Your task to perform on an android device: Show me popular games on the Play Store Image 0: 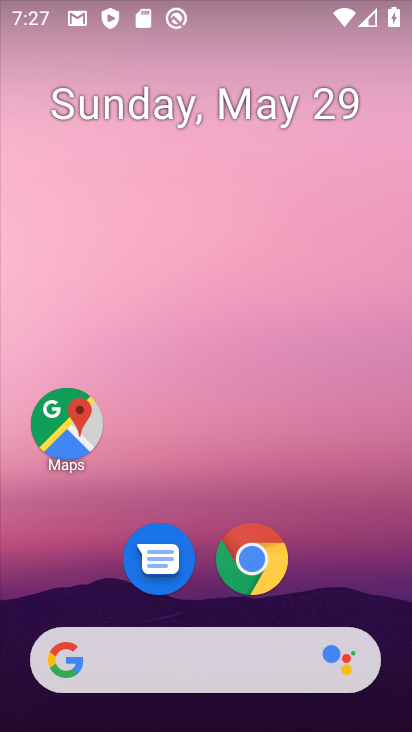
Step 0: drag from (375, 611) to (394, 163)
Your task to perform on an android device: Show me popular games on the Play Store Image 1: 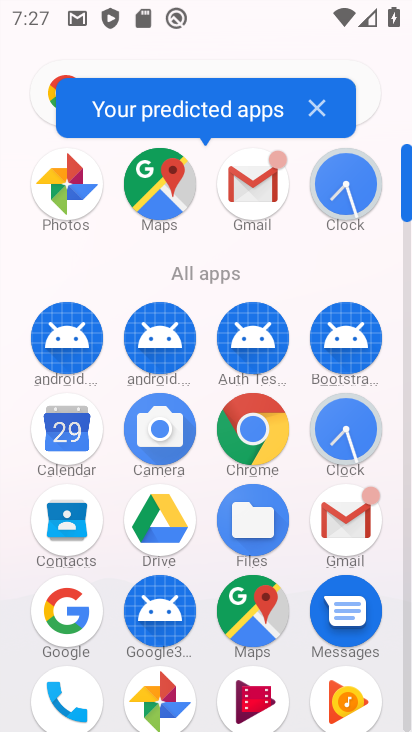
Step 1: drag from (390, 680) to (394, 398)
Your task to perform on an android device: Show me popular games on the Play Store Image 2: 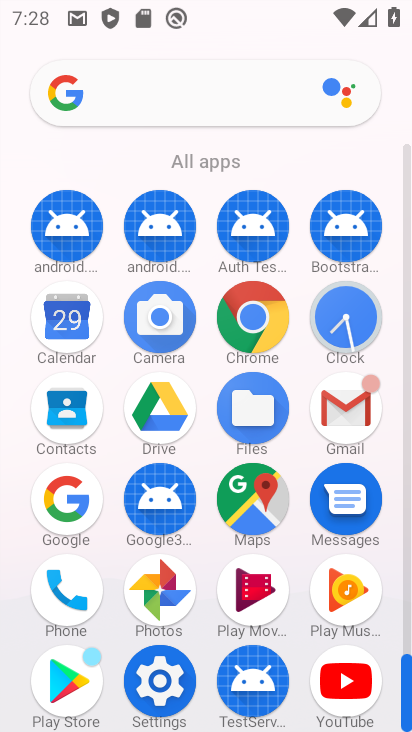
Step 2: click (50, 681)
Your task to perform on an android device: Show me popular games on the Play Store Image 3: 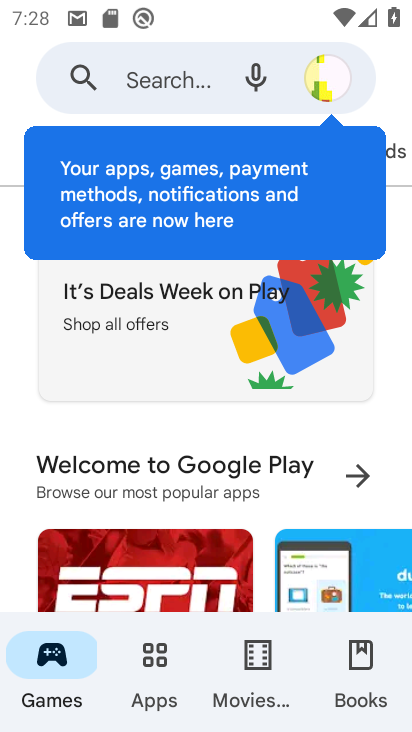
Step 3: task complete